Your task to perform on an android device: open wifi settings Image 0: 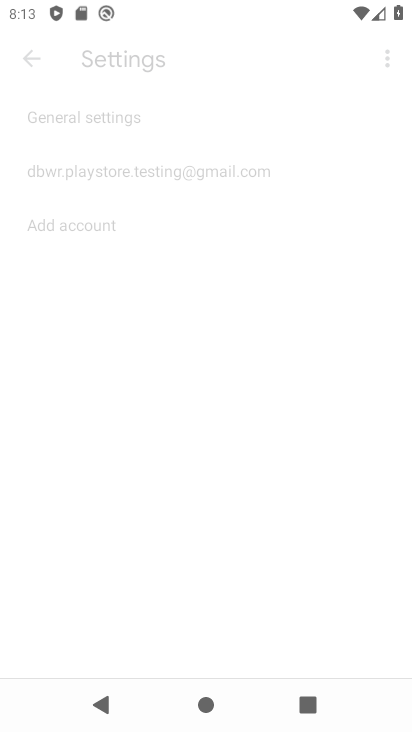
Step 0: drag from (272, 584) to (339, 99)
Your task to perform on an android device: open wifi settings Image 1: 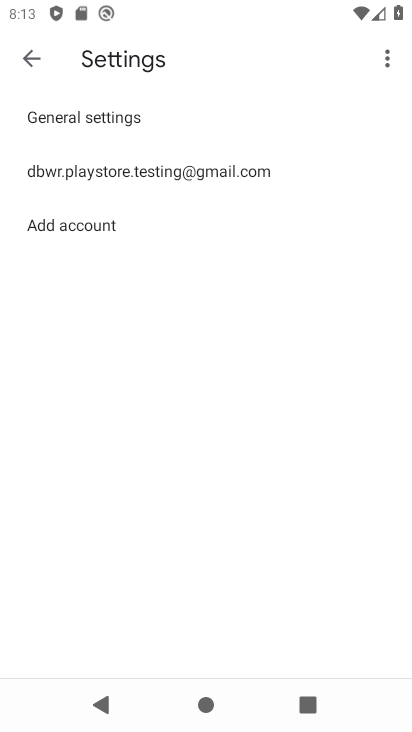
Step 1: press home button
Your task to perform on an android device: open wifi settings Image 2: 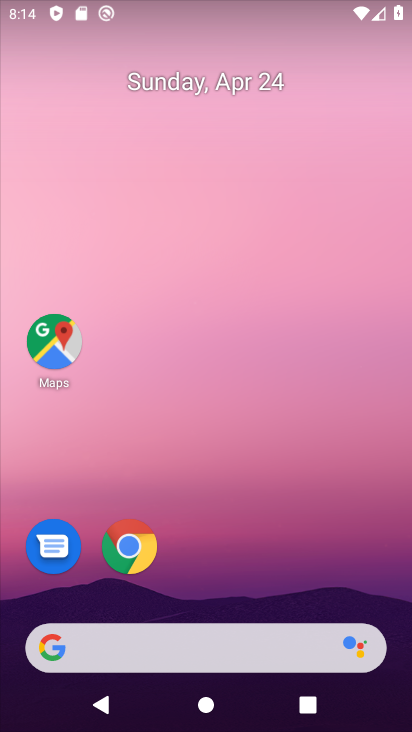
Step 2: drag from (242, 600) to (274, 192)
Your task to perform on an android device: open wifi settings Image 3: 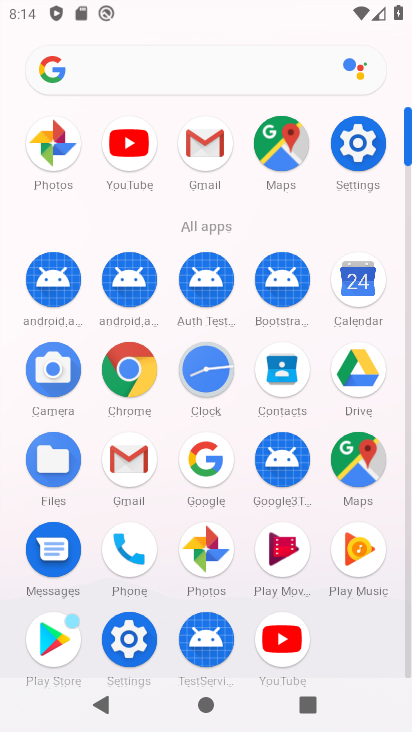
Step 3: click (367, 149)
Your task to perform on an android device: open wifi settings Image 4: 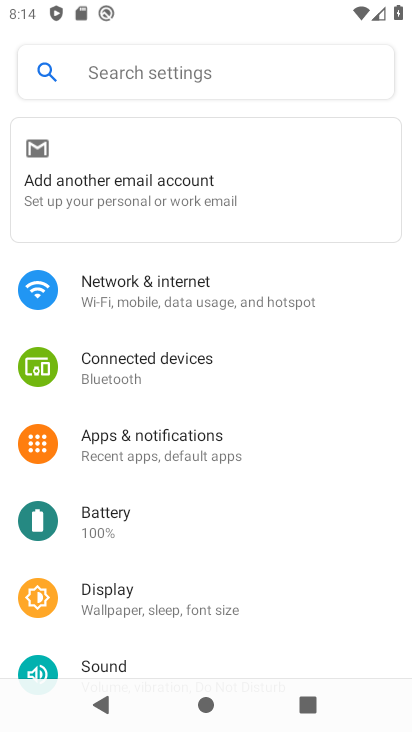
Step 4: click (195, 309)
Your task to perform on an android device: open wifi settings Image 5: 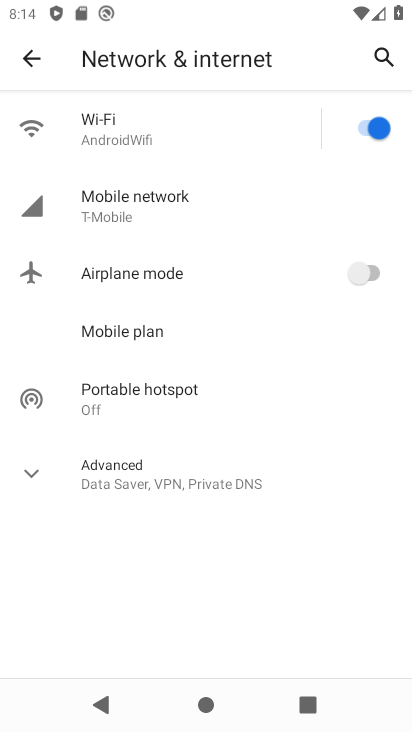
Step 5: click (216, 129)
Your task to perform on an android device: open wifi settings Image 6: 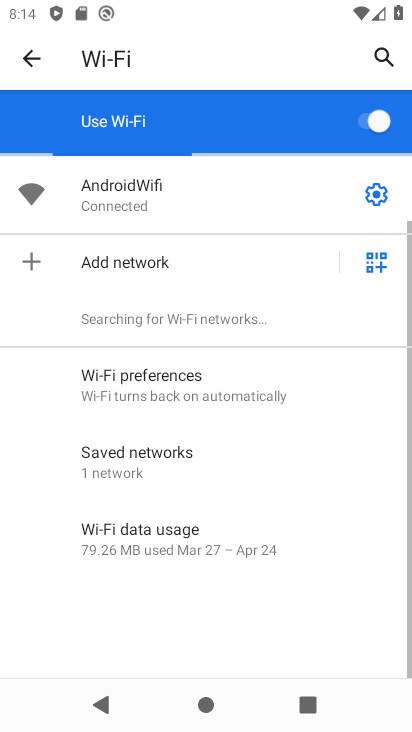
Step 6: click (376, 190)
Your task to perform on an android device: open wifi settings Image 7: 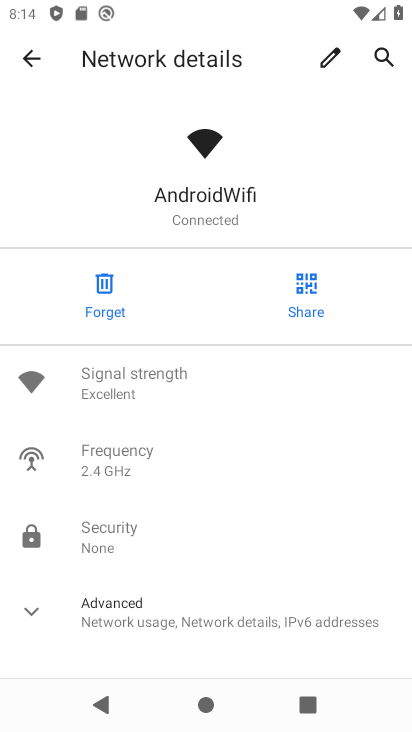
Step 7: task complete